Your task to perform on an android device: find photos in the google photos app Image 0: 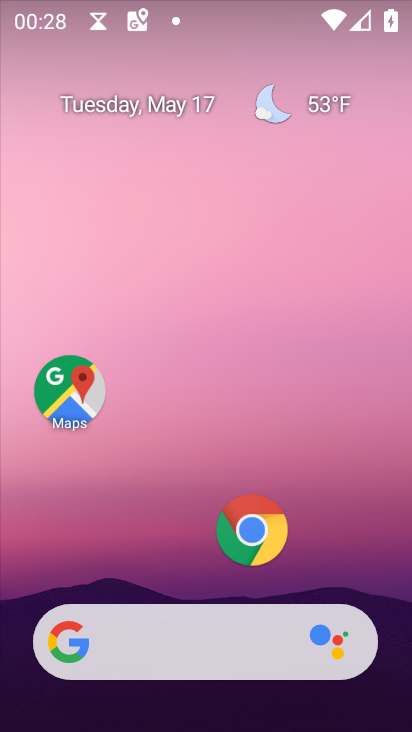
Step 0: drag from (168, 535) to (178, 62)
Your task to perform on an android device: find photos in the google photos app Image 1: 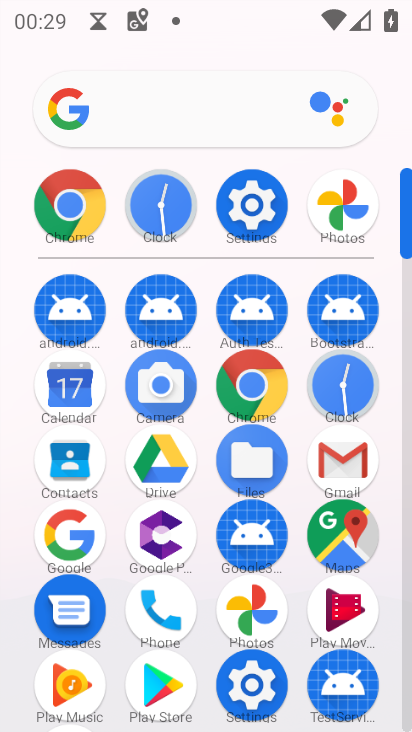
Step 1: click (241, 617)
Your task to perform on an android device: find photos in the google photos app Image 2: 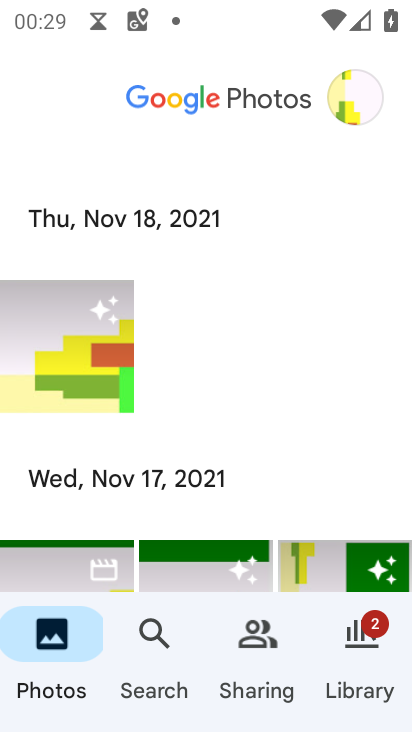
Step 2: task complete